Your task to perform on an android device: Go to wifi settings Image 0: 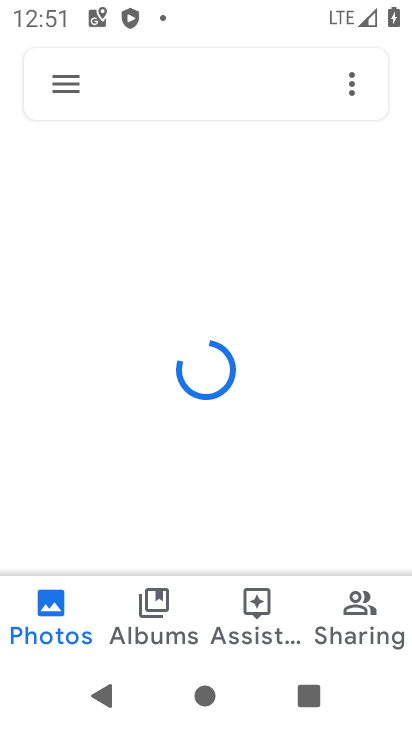
Step 0: press home button
Your task to perform on an android device: Go to wifi settings Image 1: 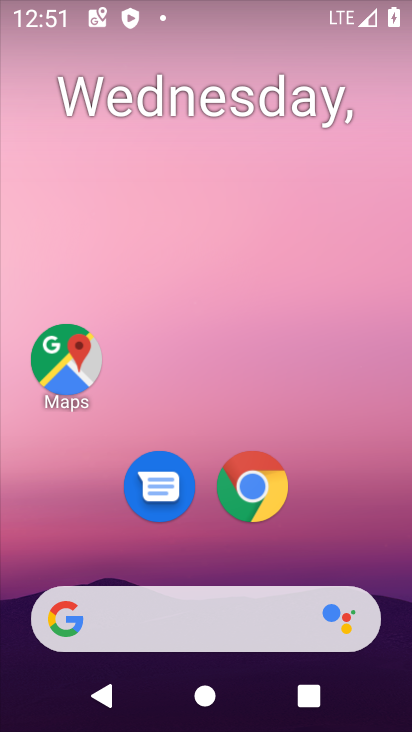
Step 1: drag from (351, 517) to (356, 46)
Your task to perform on an android device: Go to wifi settings Image 2: 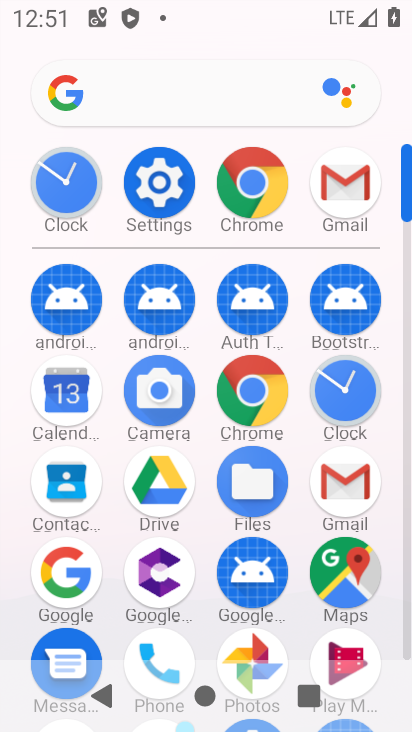
Step 2: click (165, 193)
Your task to perform on an android device: Go to wifi settings Image 3: 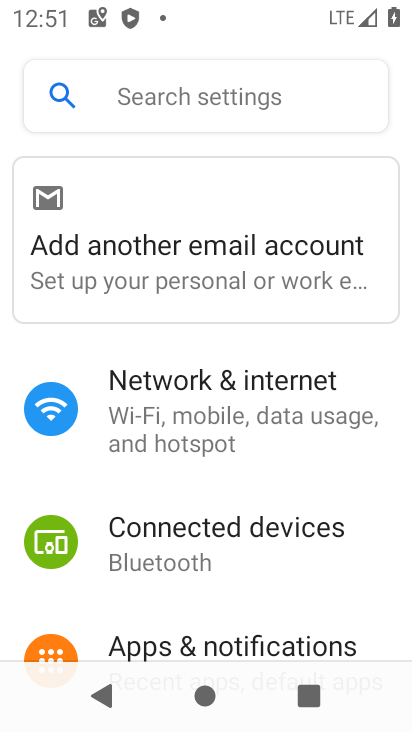
Step 3: drag from (362, 612) to (360, 386)
Your task to perform on an android device: Go to wifi settings Image 4: 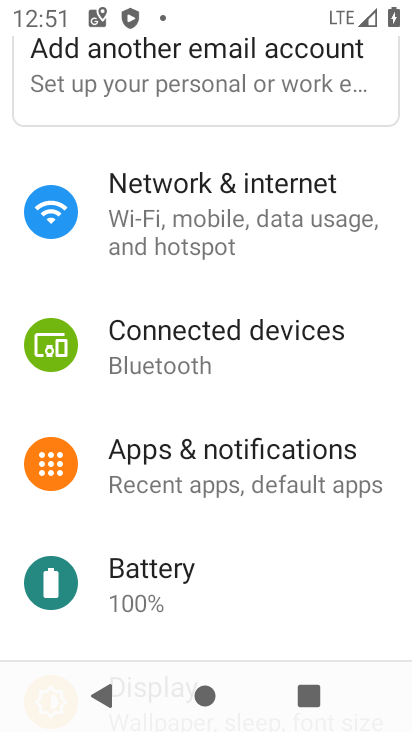
Step 4: drag from (356, 545) to (353, 376)
Your task to perform on an android device: Go to wifi settings Image 5: 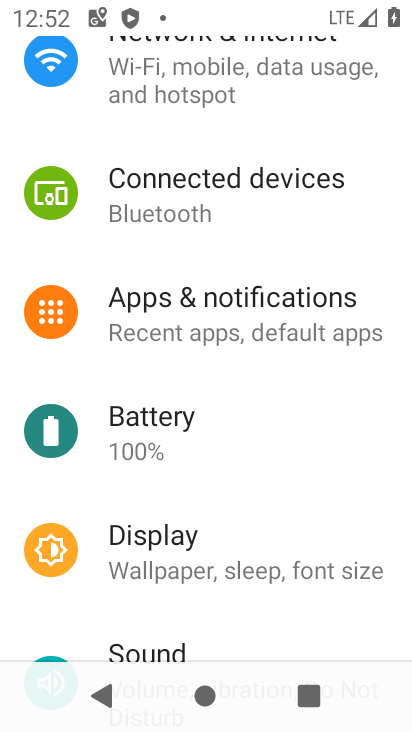
Step 5: drag from (346, 508) to (360, 343)
Your task to perform on an android device: Go to wifi settings Image 6: 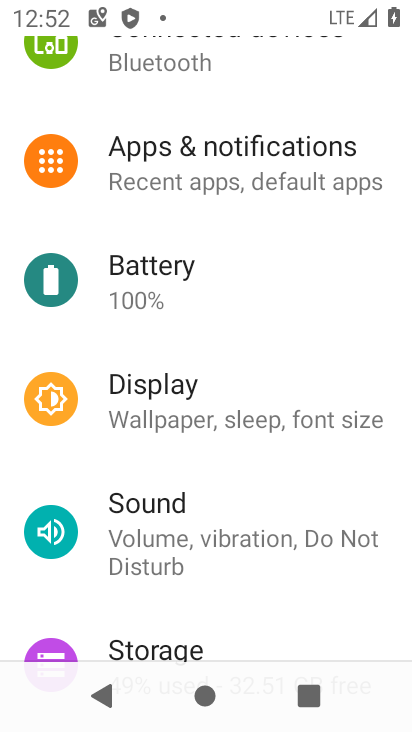
Step 6: drag from (381, 571) to (379, 376)
Your task to perform on an android device: Go to wifi settings Image 7: 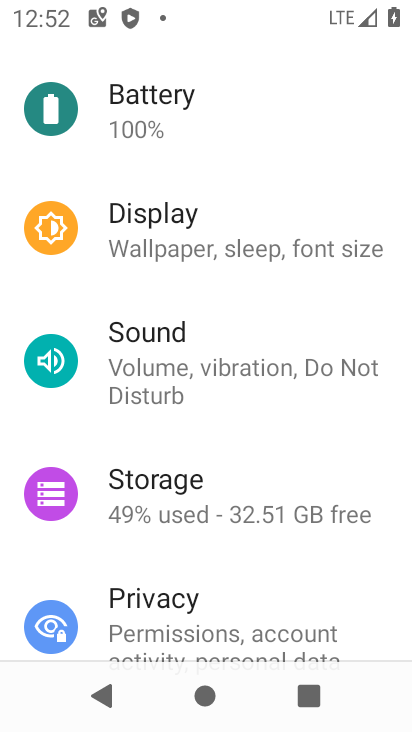
Step 7: drag from (364, 504) to (368, 296)
Your task to perform on an android device: Go to wifi settings Image 8: 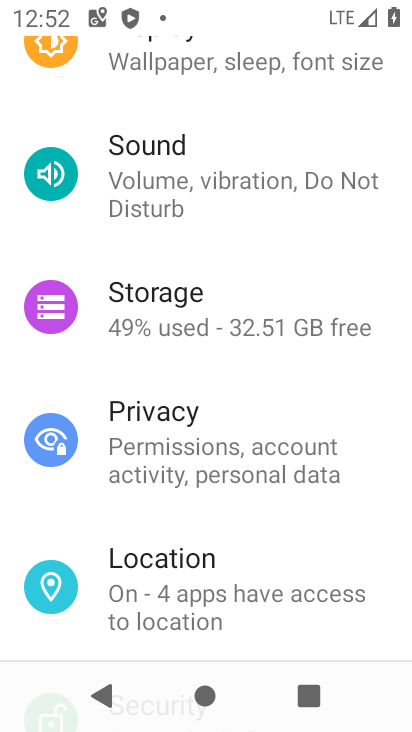
Step 8: drag from (342, 533) to (340, 205)
Your task to perform on an android device: Go to wifi settings Image 9: 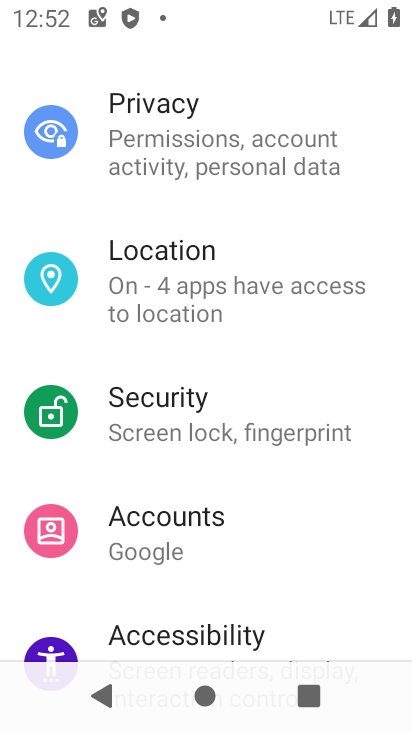
Step 9: drag from (351, 241) to (350, 400)
Your task to perform on an android device: Go to wifi settings Image 10: 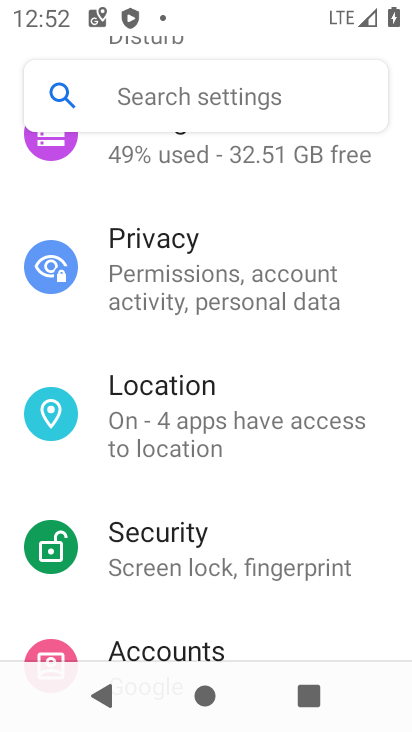
Step 10: drag from (375, 201) to (376, 386)
Your task to perform on an android device: Go to wifi settings Image 11: 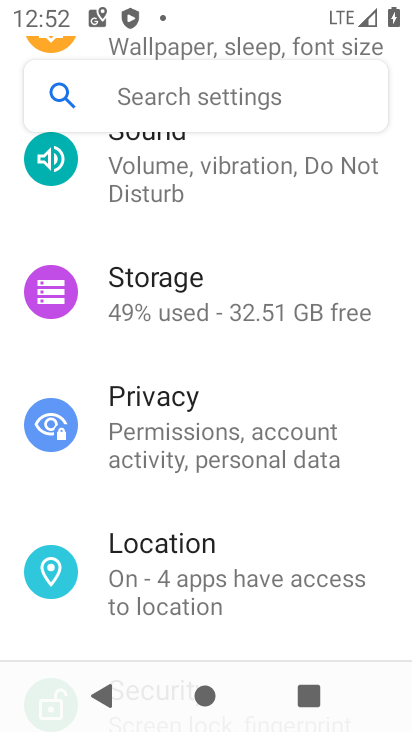
Step 11: drag from (373, 221) to (346, 437)
Your task to perform on an android device: Go to wifi settings Image 12: 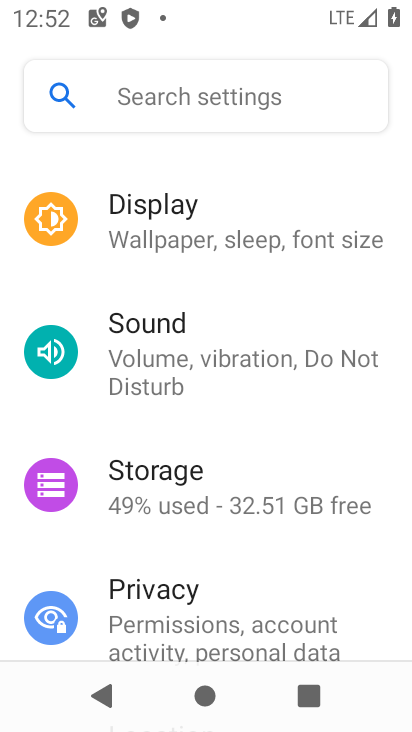
Step 12: drag from (371, 172) to (364, 361)
Your task to perform on an android device: Go to wifi settings Image 13: 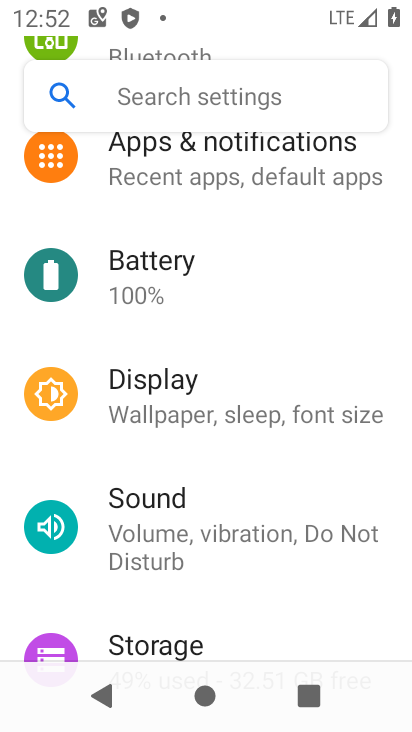
Step 13: drag from (364, 138) to (361, 377)
Your task to perform on an android device: Go to wifi settings Image 14: 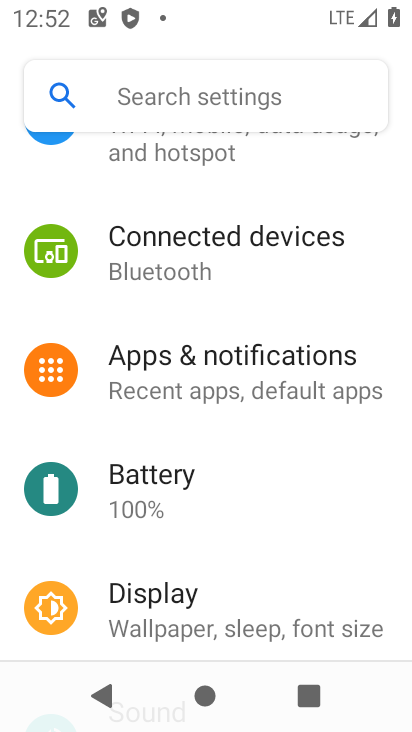
Step 14: drag from (379, 184) to (355, 416)
Your task to perform on an android device: Go to wifi settings Image 15: 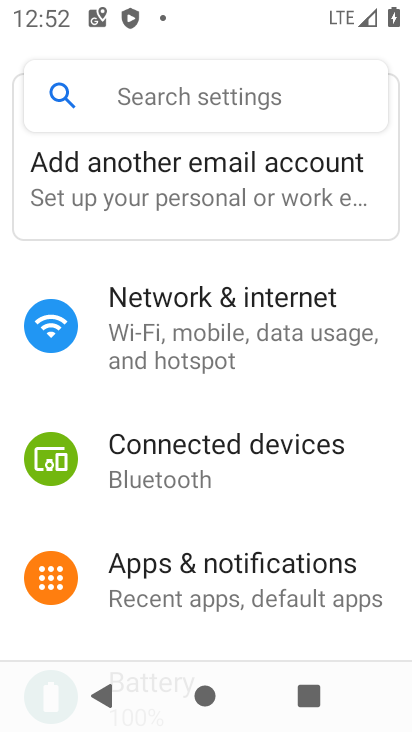
Step 15: click (283, 331)
Your task to perform on an android device: Go to wifi settings Image 16: 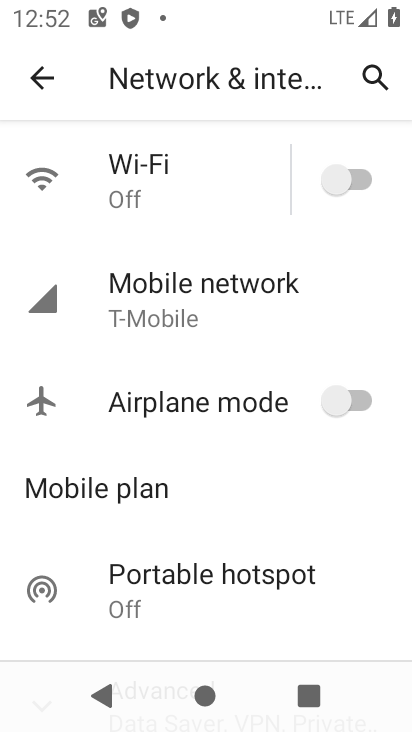
Step 16: click (181, 177)
Your task to perform on an android device: Go to wifi settings Image 17: 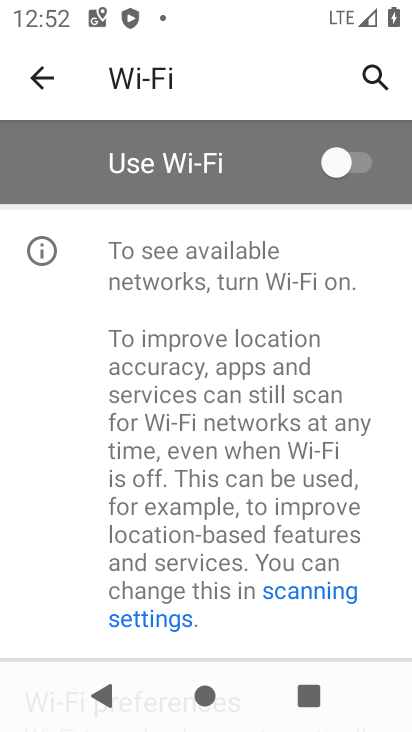
Step 17: task complete